Your task to perform on an android device: Is it going to rain tomorrow? Image 0: 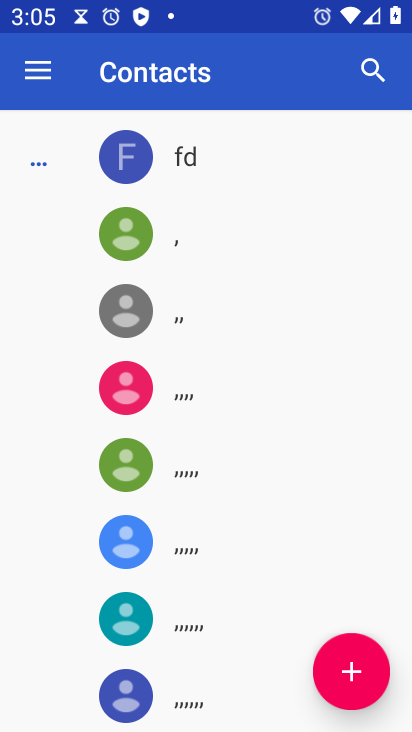
Step 0: press back button
Your task to perform on an android device: Is it going to rain tomorrow? Image 1: 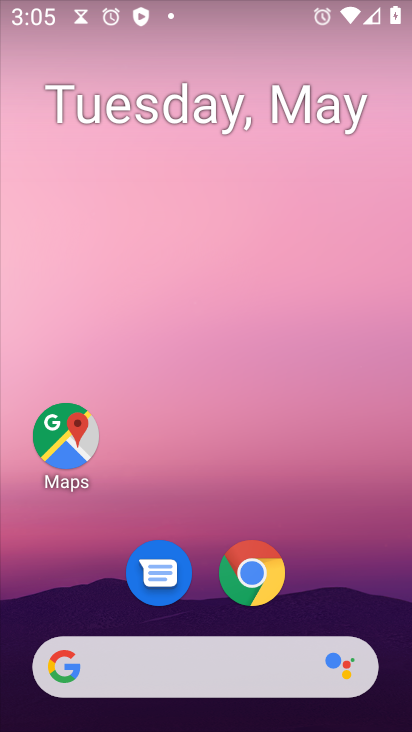
Step 1: drag from (347, 565) to (295, 4)
Your task to perform on an android device: Is it going to rain tomorrow? Image 2: 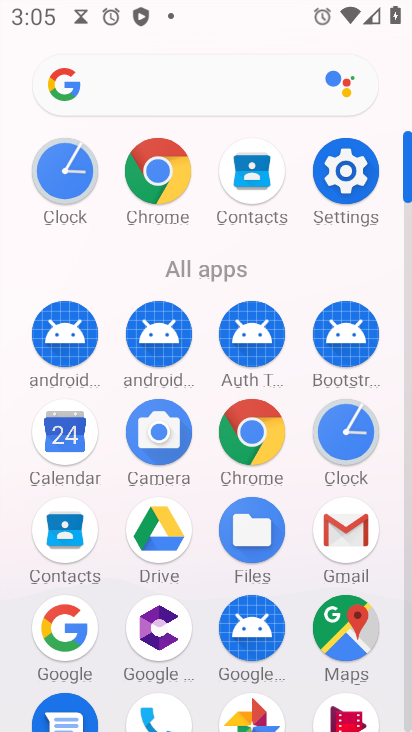
Step 2: click (156, 168)
Your task to perform on an android device: Is it going to rain tomorrow? Image 3: 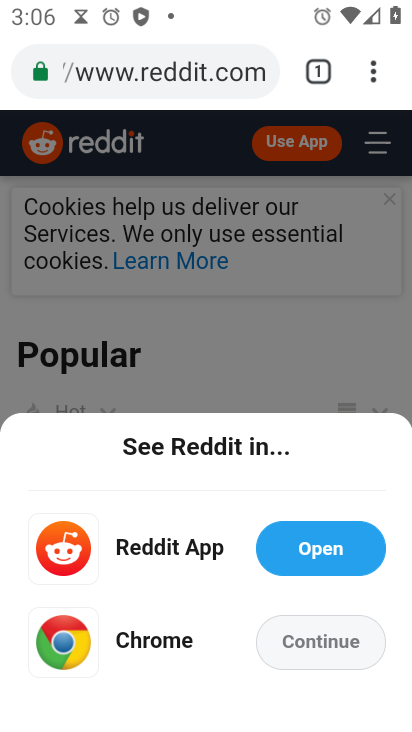
Step 3: click (119, 61)
Your task to perform on an android device: Is it going to rain tomorrow? Image 4: 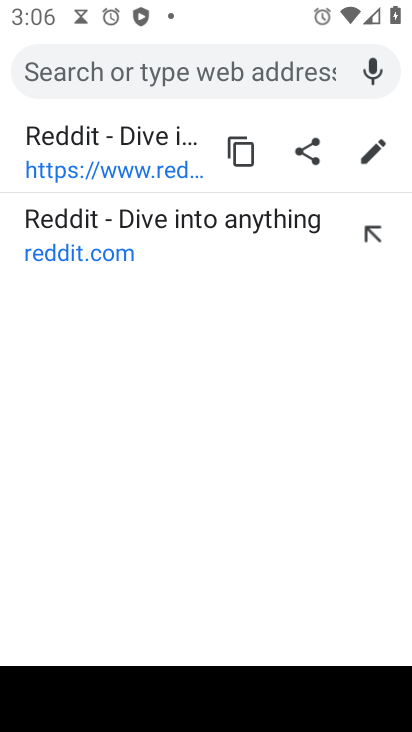
Step 4: type "Is it going to rain tomorrow?"
Your task to perform on an android device: Is it going to rain tomorrow? Image 5: 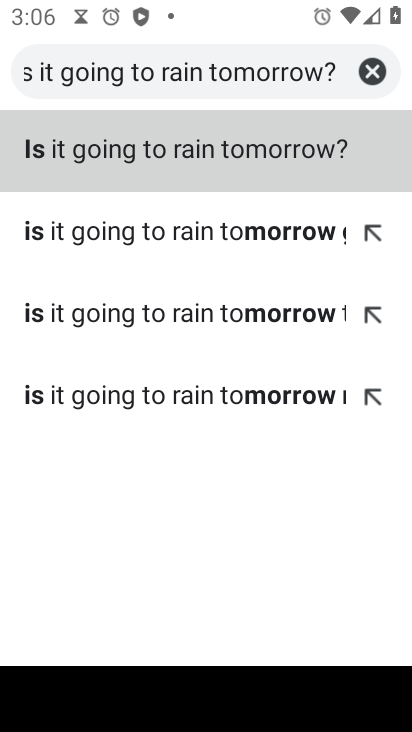
Step 5: click (129, 163)
Your task to perform on an android device: Is it going to rain tomorrow? Image 6: 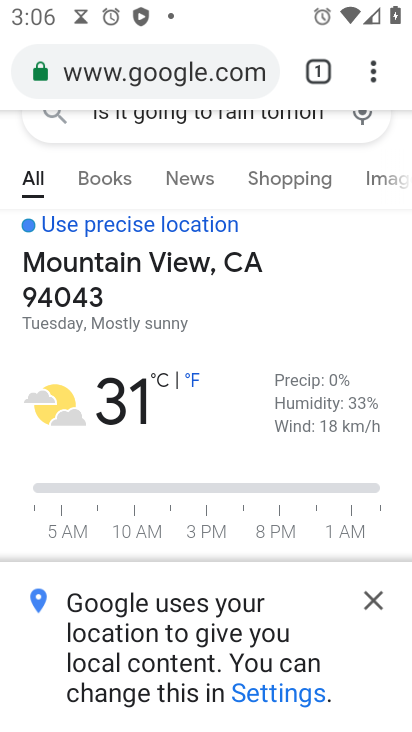
Step 6: task complete